Your task to perform on an android device: Go to network settings Image 0: 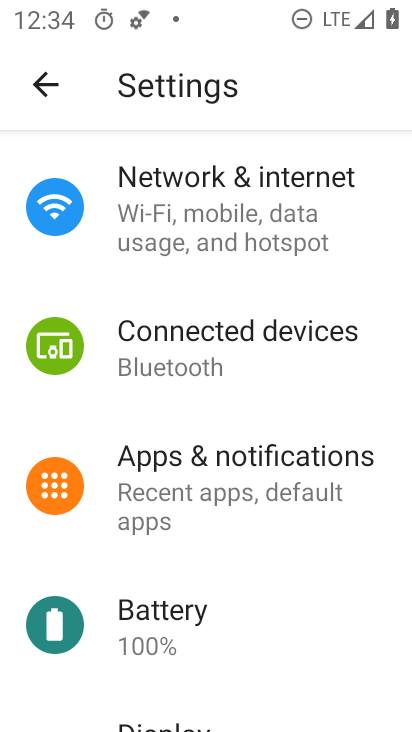
Step 0: drag from (371, 583) to (380, 357)
Your task to perform on an android device: Go to network settings Image 1: 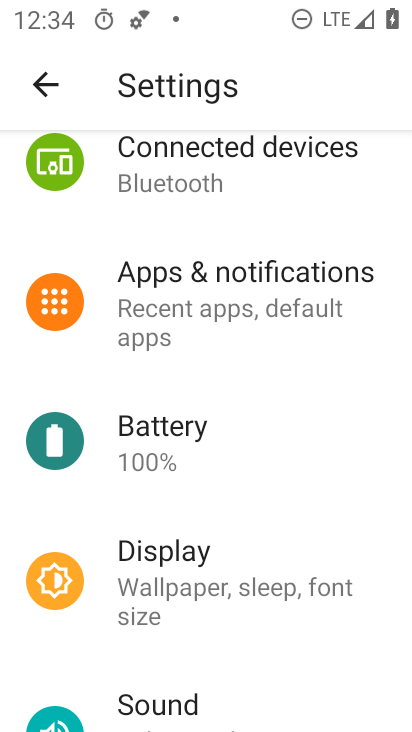
Step 1: drag from (371, 618) to (376, 438)
Your task to perform on an android device: Go to network settings Image 2: 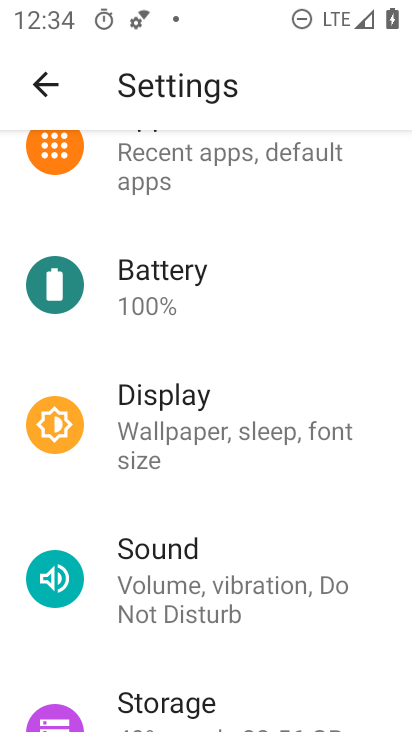
Step 2: drag from (380, 619) to (389, 505)
Your task to perform on an android device: Go to network settings Image 3: 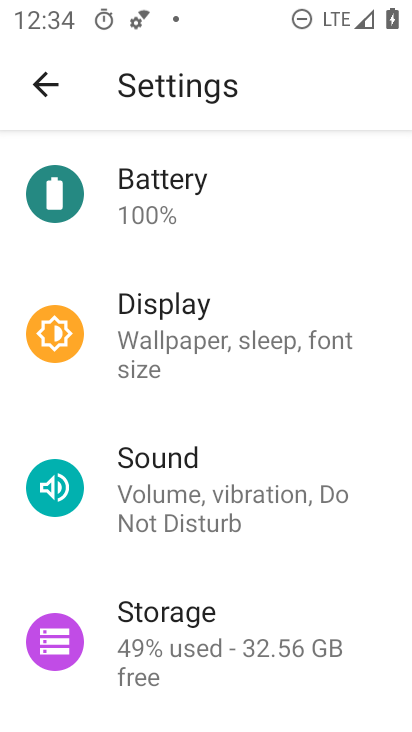
Step 3: drag from (371, 600) to (363, 486)
Your task to perform on an android device: Go to network settings Image 4: 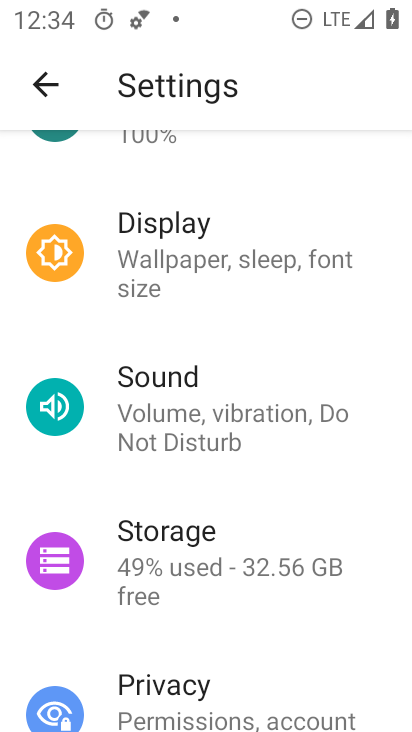
Step 4: drag from (371, 626) to (374, 496)
Your task to perform on an android device: Go to network settings Image 5: 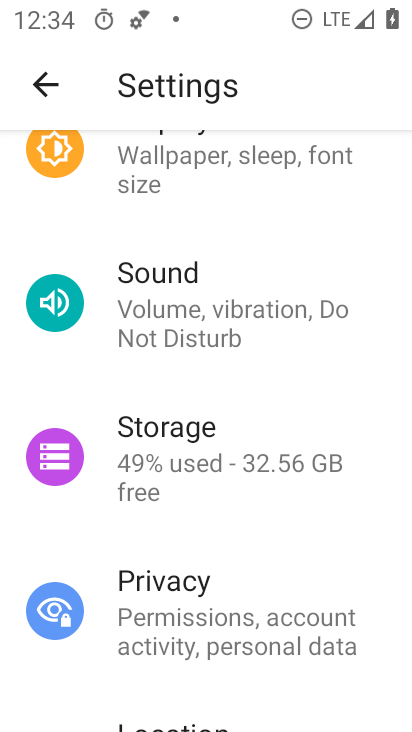
Step 5: drag from (383, 630) to (374, 504)
Your task to perform on an android device: Go to network settings Image 6: 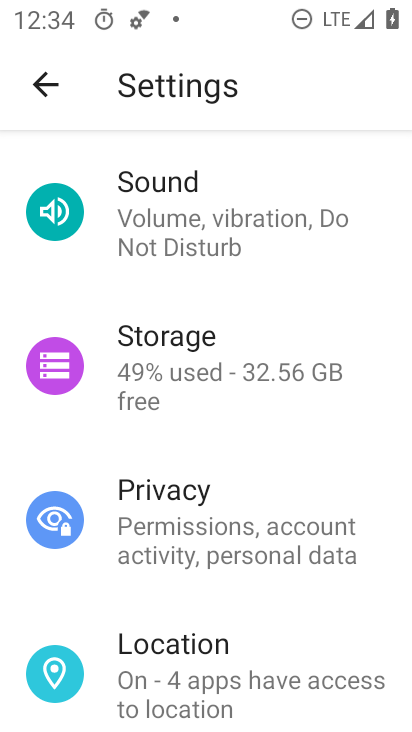
Step 6: drag from (382, 624) to (380, 496)
Your task to perform on an android device: Go to network settings Image 7: 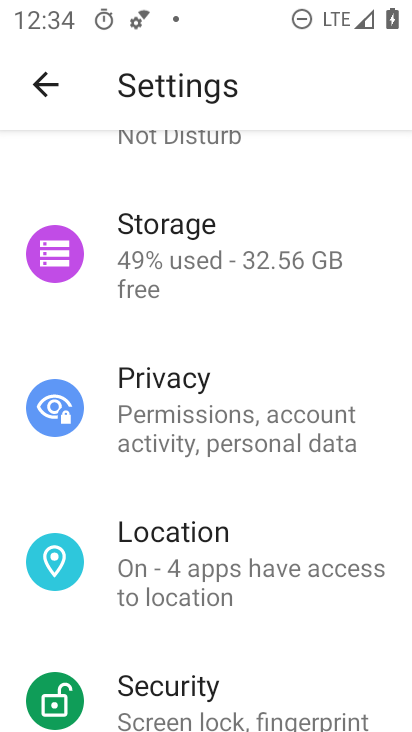
Step 7: drag from (370, 639) to (370, 520)
Your task to perform on an android device: Go to network settings Image 8: 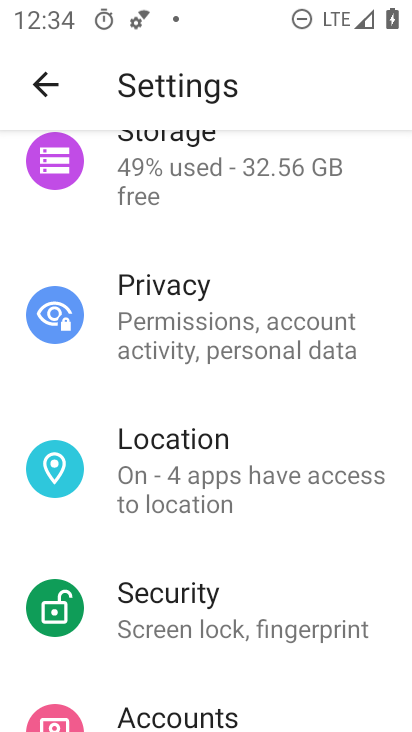
Step 8: drag from (378, 665) to (384, 546)
Your task to perform on an android device: Go to network settings Image 9: 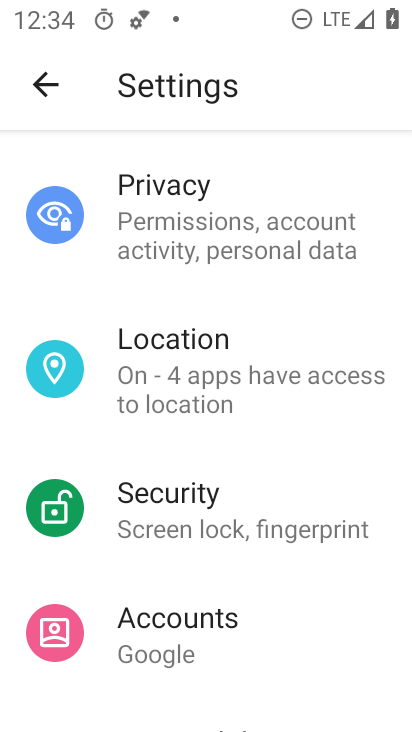
Step 9: drag from (377, 647) to (370, 535)
Your task to perform on an android device: Go to network settings Image 10: 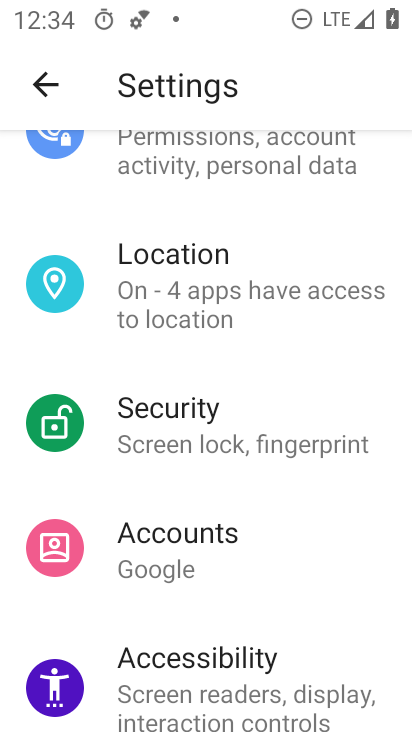
Step 10: drag from (373, 645) to (377, 535)
Your task to perform on an android device: Go to network settings Image 11: 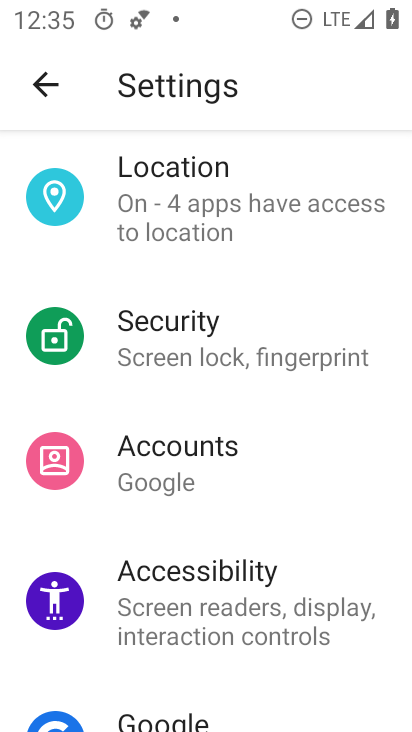
Step 11: drag from (382, 663) to (381, 512)
Your task to perform on an android device: Go to network settings Image 12: 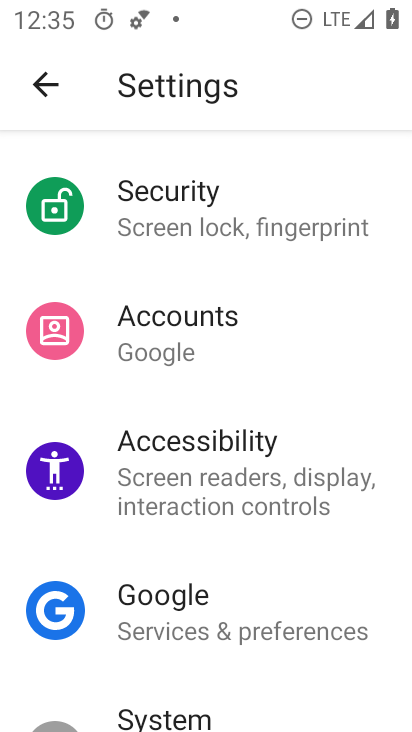
Step 12: drag from (394, 513) to (387, 601)
Your task to perform on an android device: Go to network settings Image 13: 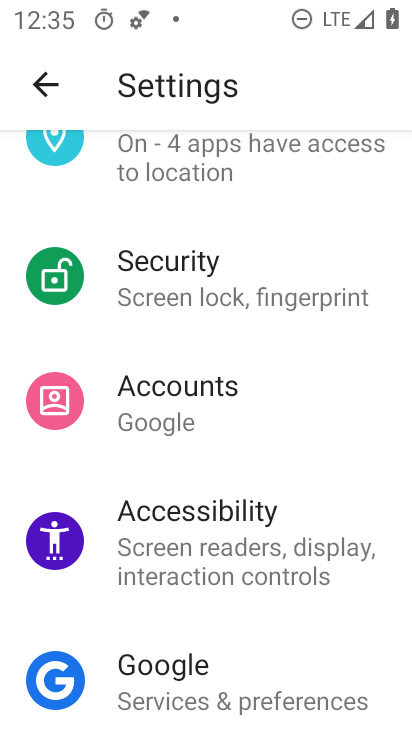
Step 13: drag from (389, 469) to (378, 590)
Your task to perform on an android device: Go to network settings Image 14: 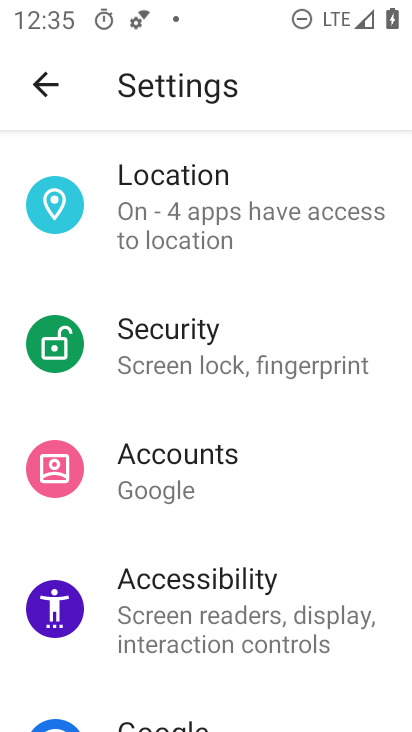
Step 14: drag from (371, 449) to (371, 546)
Your task to perform on an android device: Go to network settings Image 15: 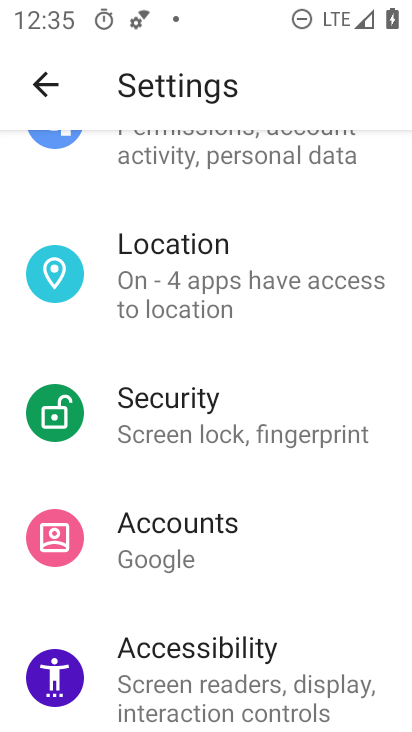
Step 15: drag from (388, 401) to (380, 535)
Your task to perform on an android device: Go to network settings Image 16: 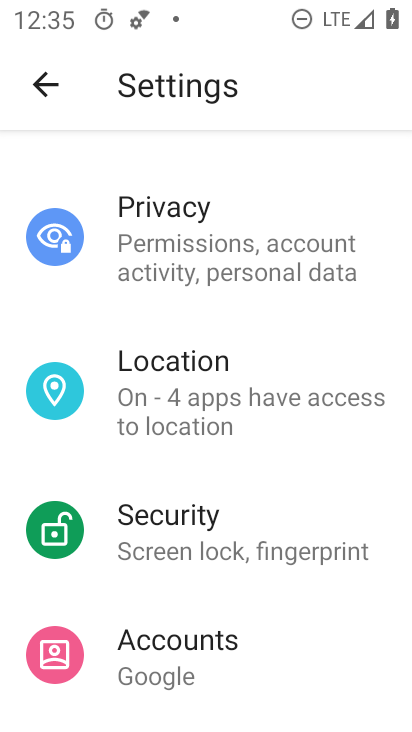
Step 16: drag from (389, 436) to (377, 532)
Your task to perform on an android device: Go to network settings Image 17: 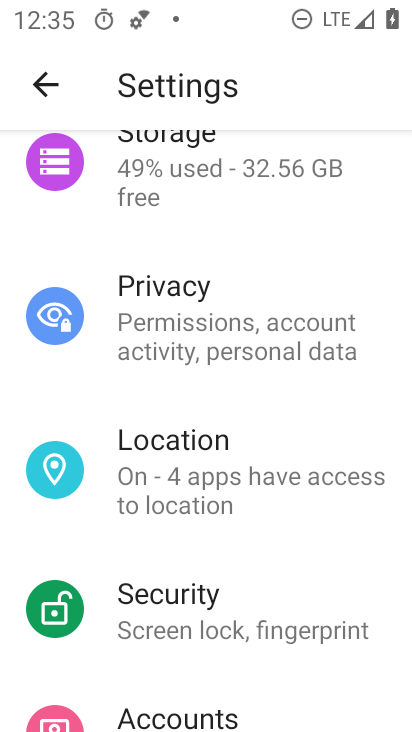
Step 17: drag from (385, 386) to (380, 513)
Your task to perform on an android device: Go to network settings Image 18: 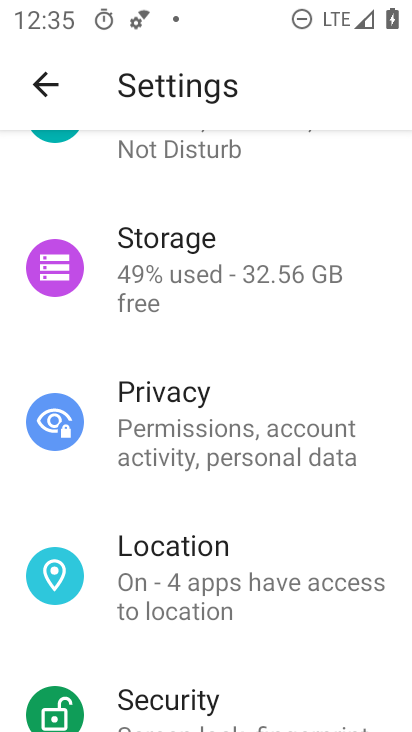
Step 18: drag from (377, 366) to (370, 483)
Your task to perform on an android device: Go to network settings Image 19: 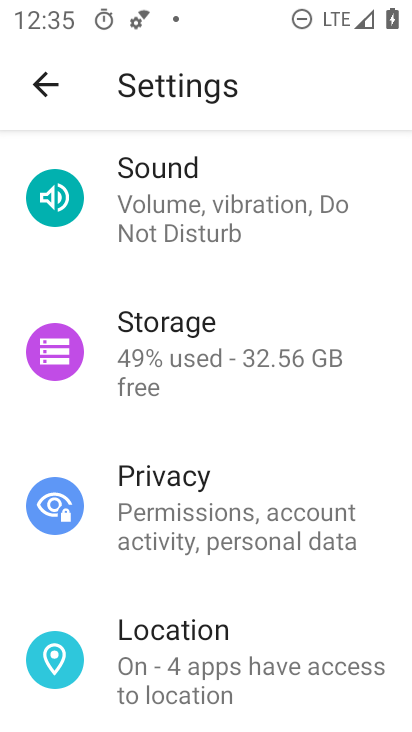
Step 19: drag from (378, 333) to (374, 474)
Your task to perform on an android device: Go to network settings Image 20: 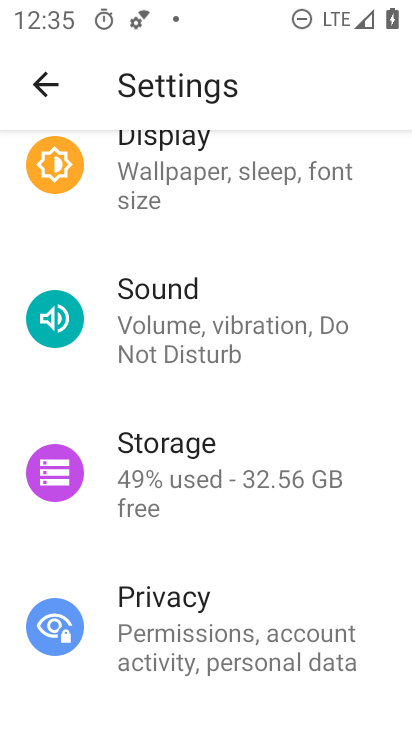
Step 20: drag from (379, 335) to (365, 478)
Your task to perform on an android device: Go to network settings Image 21: 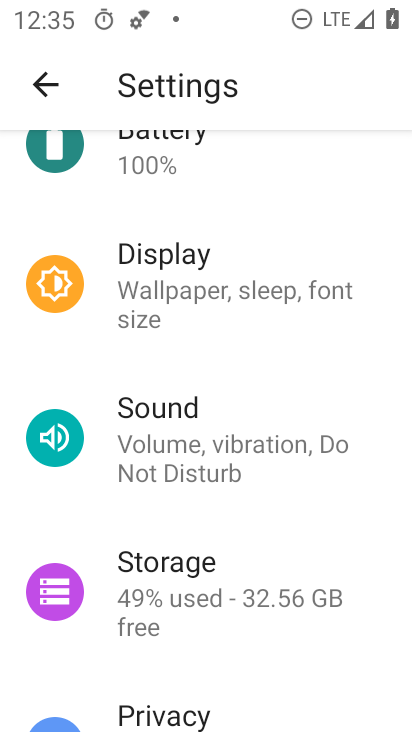
Step 21: drag from (373, 355) to (368, 474)
Your task to perform on an android device: Go to network settings Image 22: 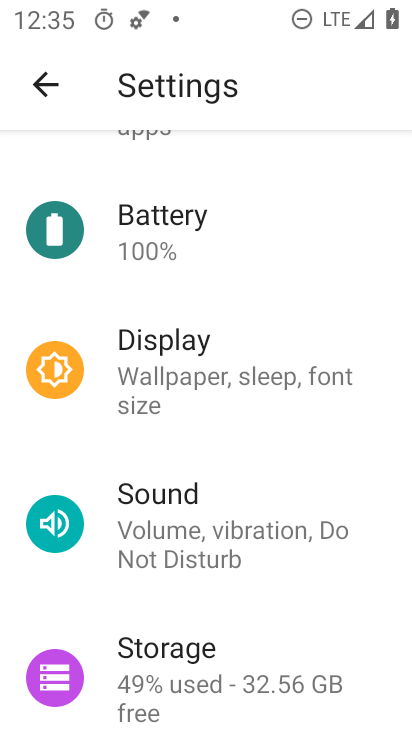
Step 22: drag from (377, 333) to (370, 474)
Your task to perform on an android device: Go to network settings Image 23: 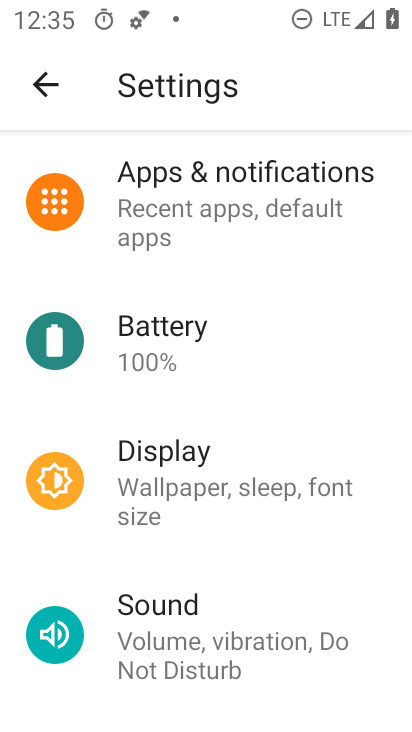
Step 23: drag from (373, 341) to (374, 498)
Your task to perform on an android device: Go to network settings Image 24: 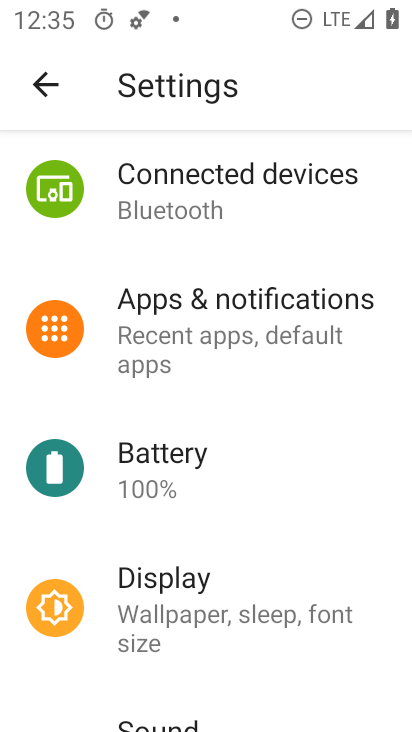
Step 24: drag from (366, 335) to (370, 500)
Your task to perform on an android device: Go to network settings Image 25: 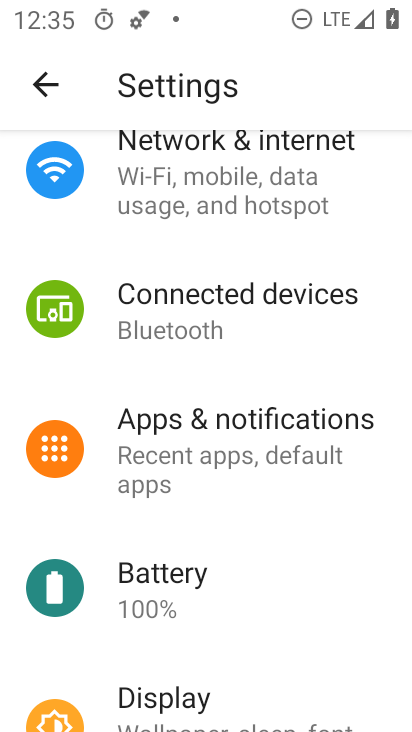
Step 25: drag from (374, 291) to (370, 492)
Your task to perform on an android device: Go to network settings Image 26: 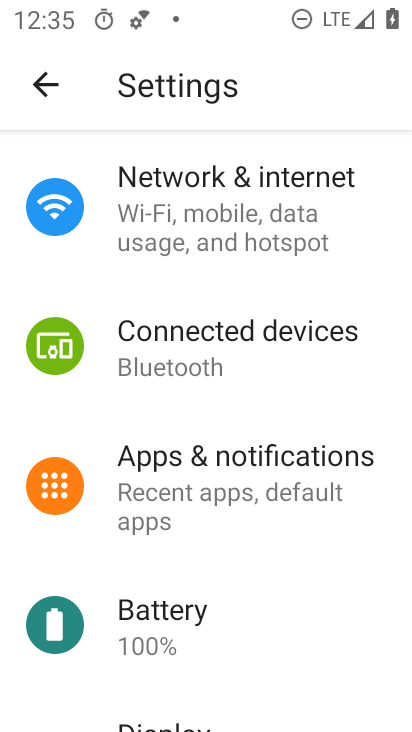
Step 26: click (255, 214)
Your task to perform on an android device: Go to network settings Image 27: 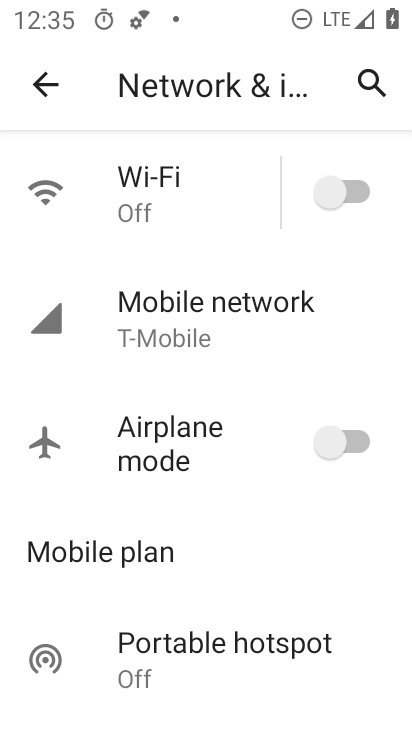
Step 27: task complete